Your task to perform on an android device: Search for vegetarian restaurants on Maps Image 0: 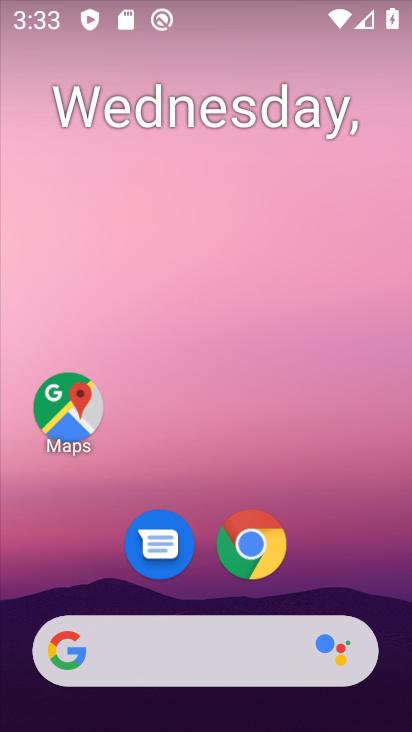
Step 0: click (67, 418)
Your task to perform on an android device: Search for vegetarian restaurants on Maps Image 1: 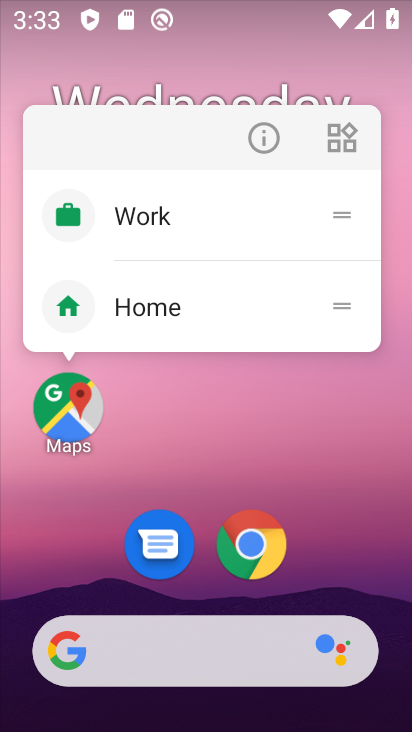
Step 1: click (73, 417)
Your task to perform on an android device: Search for vegetarian restaurants on Maps Image 2: 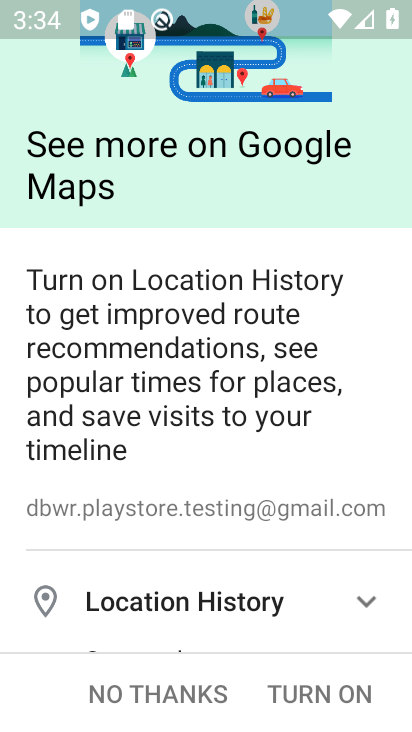
Step 2: click (144, 673)
Your task to perform on an android device: Search for vegetarian restaurants on Maps Image 3: 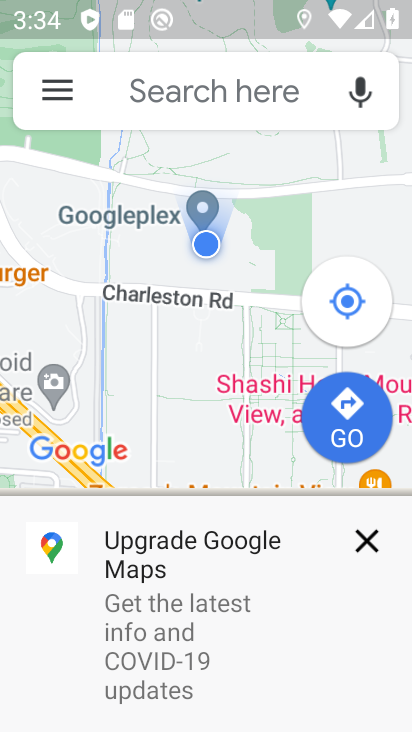
Step 3: click (206, 114)
Your task to perform on an android device: Search for vegetarian restaurants on Maps Image 4: 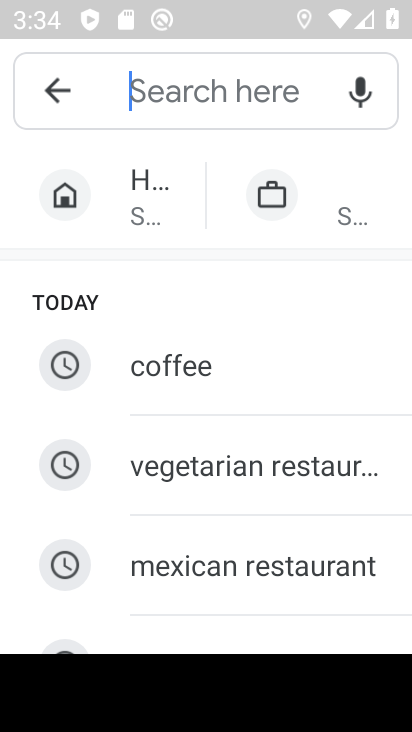
Step 4: type "vegeta"
Your task to perform on an android device: Search for vegetarian restaurants on Maps Image 5: 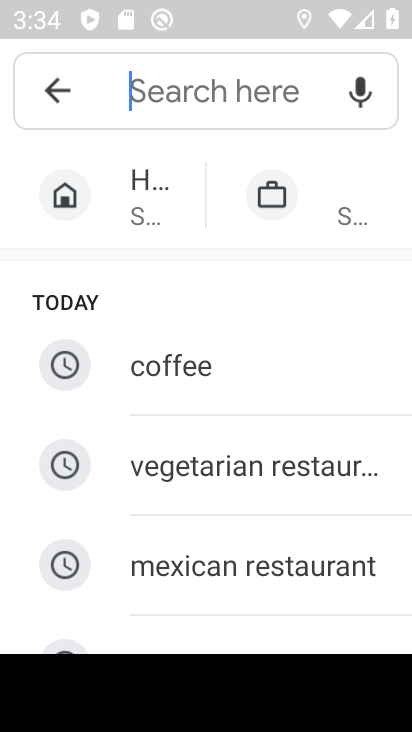
Step 5: click (325, 481)
Your task to perform on an android device: Search for vegetarian restaurants on Maps Image 6: 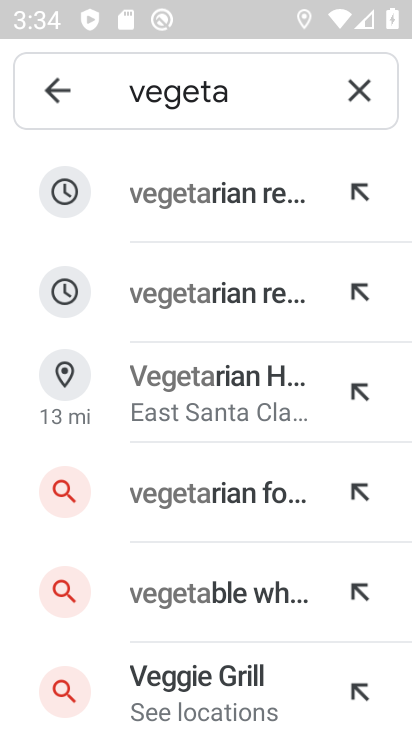
Step 6: click (222, 197)
Your task to perform on an android device: Search for vegetarian restaurants on Maps Image 7: 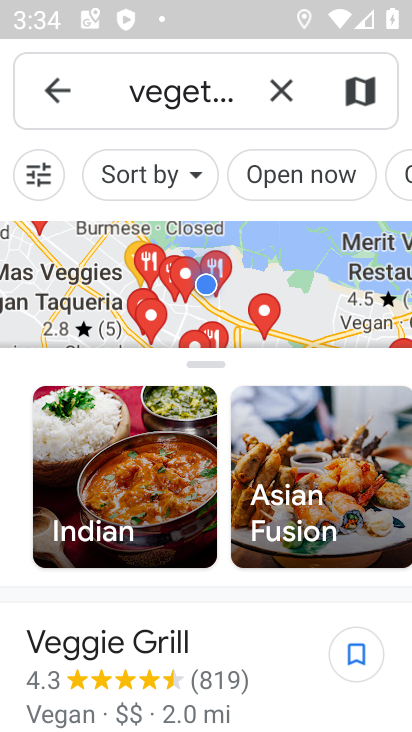
Step 7: task complete